Your task to perform on an android device: install app "AliExpress" Image 0: 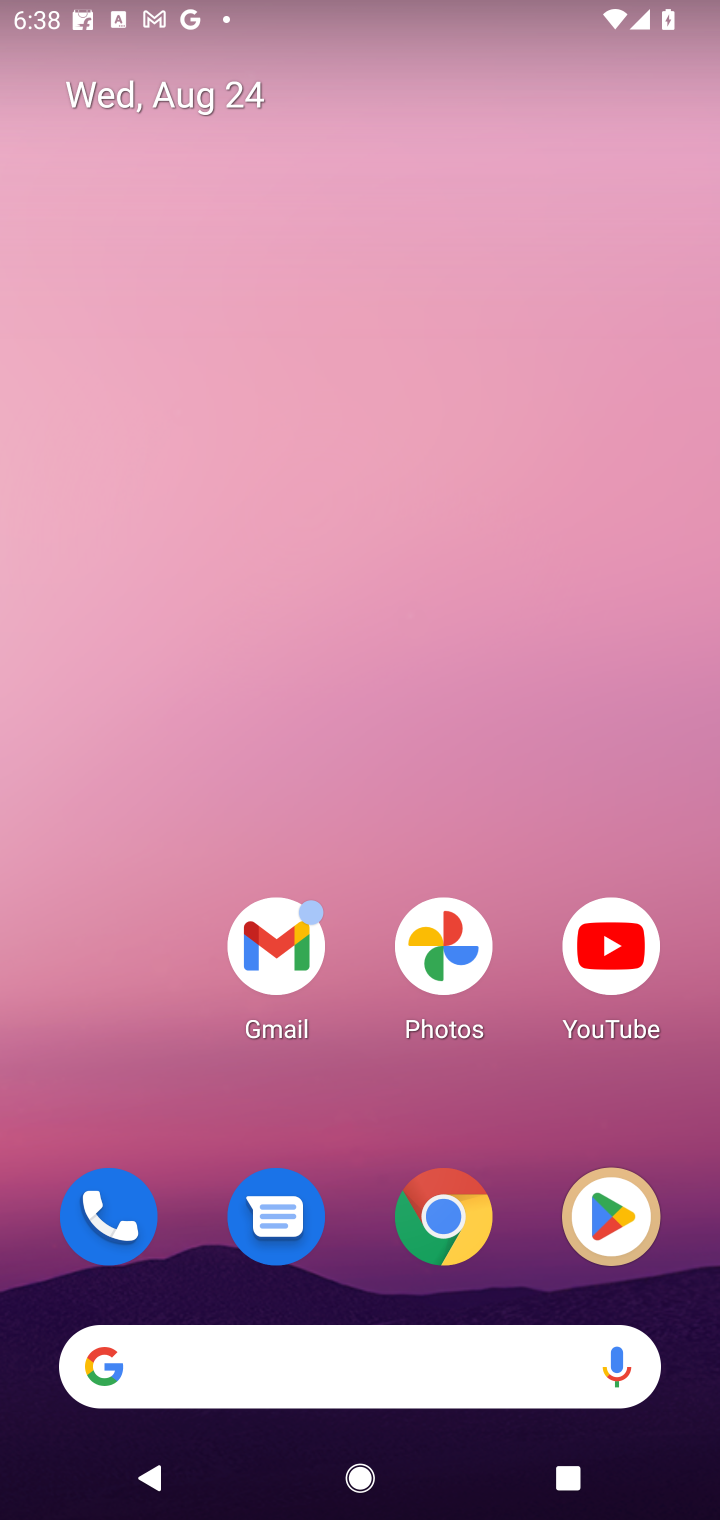
Step 0: click (606, 1221)
Your task to perform on an android device: install app "AliExpress" Image 1: 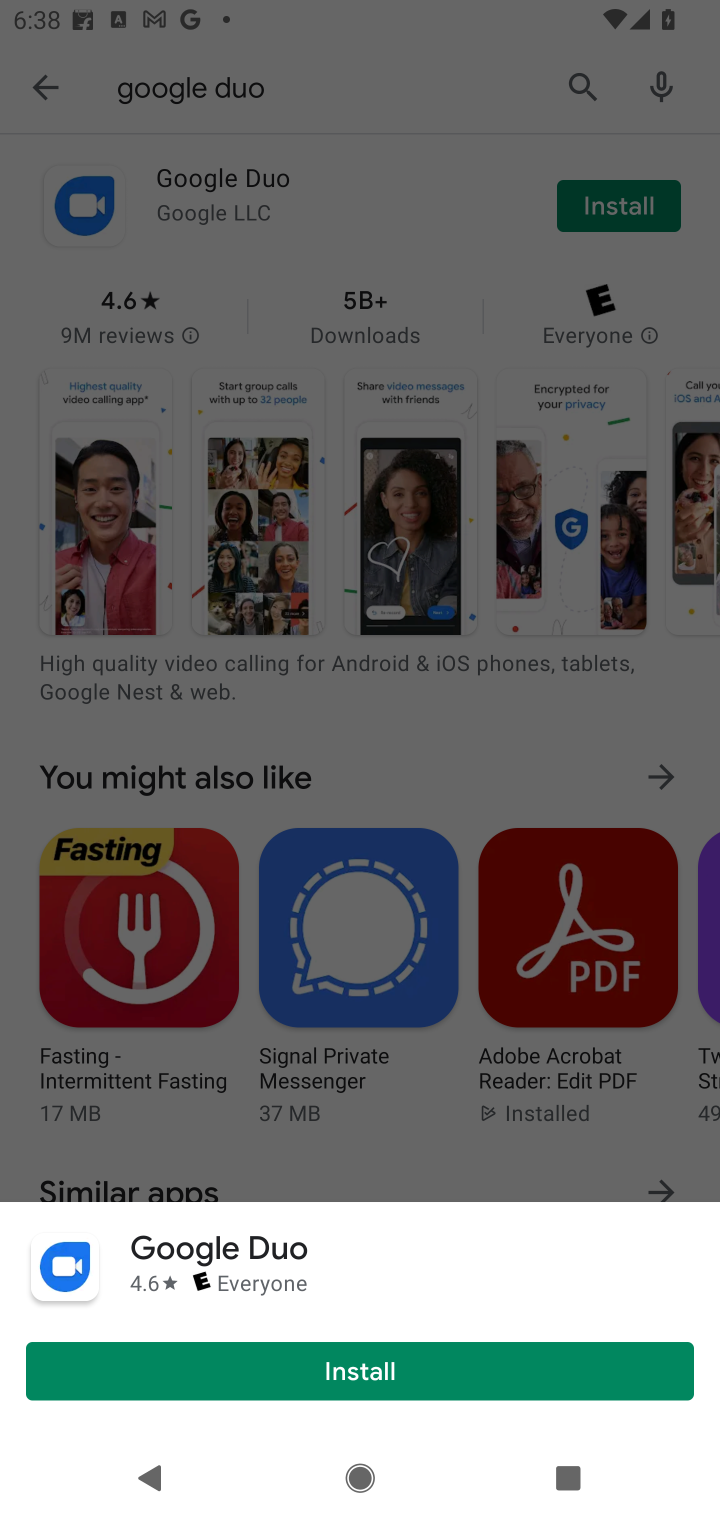
Step 1: click (572, 71)
Your task to perform on an android device: install app "AliExpress" Image 2: 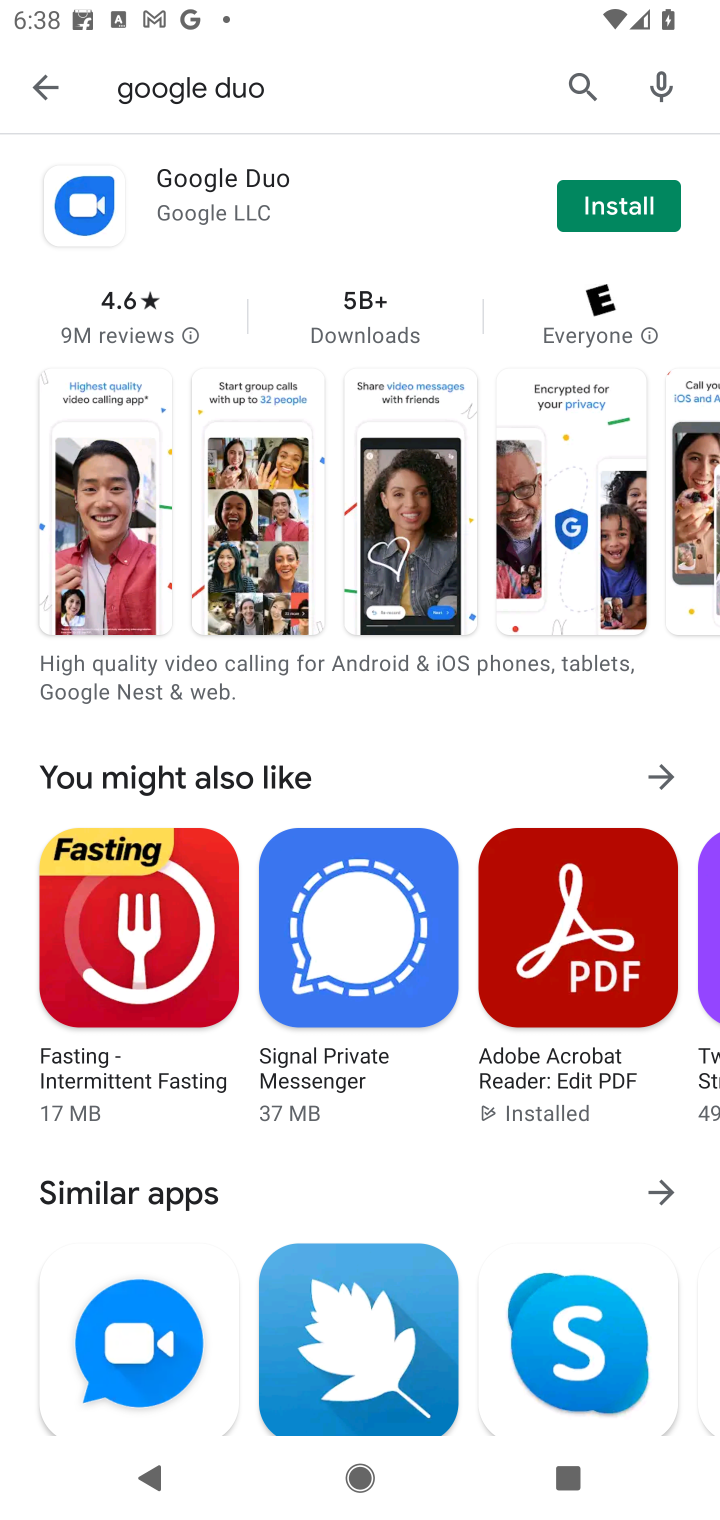
Step 2: click (582, 83)
Your task to perform on an android device: install app "AliExpress" Image 3: 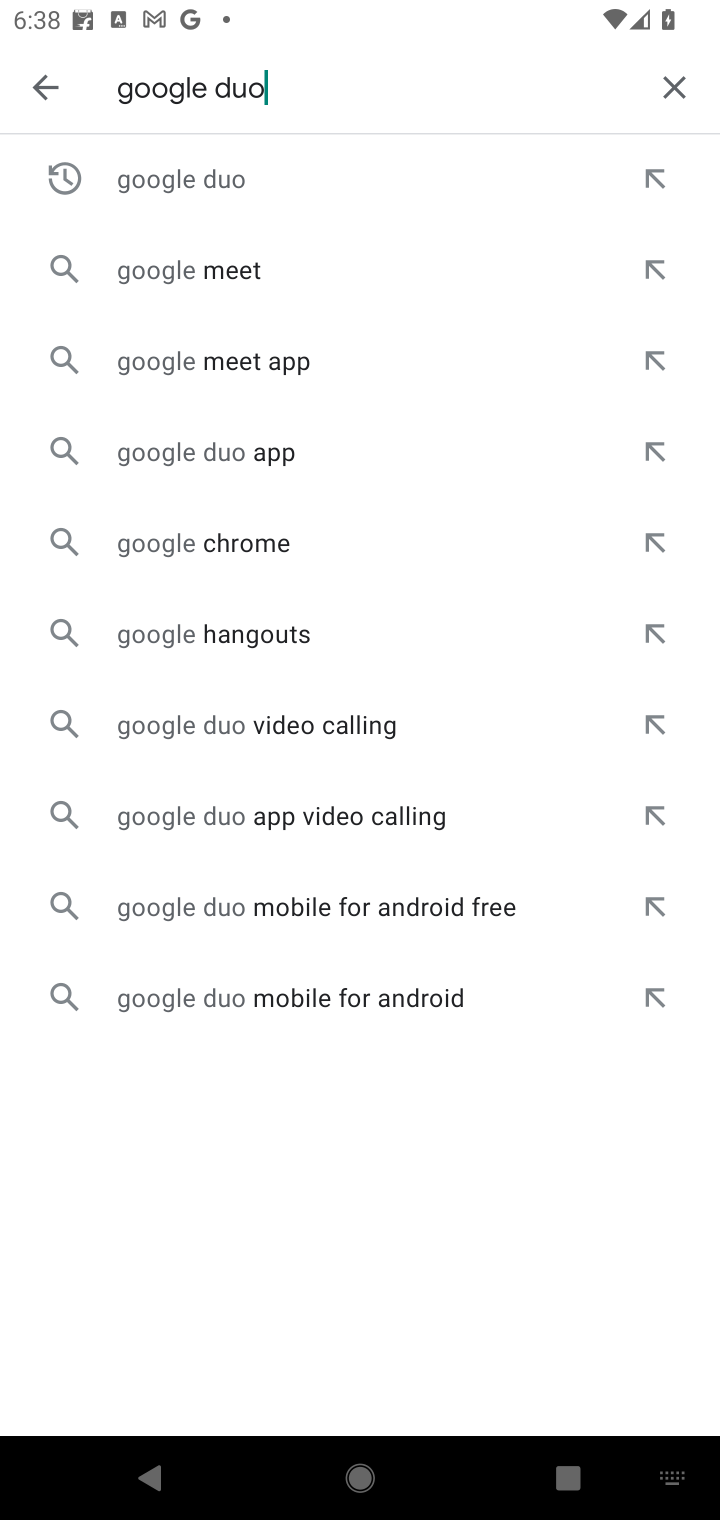
Step 3: click (658, 102)
Your task to perform on an android device: install app "AliExpress" Image 4: 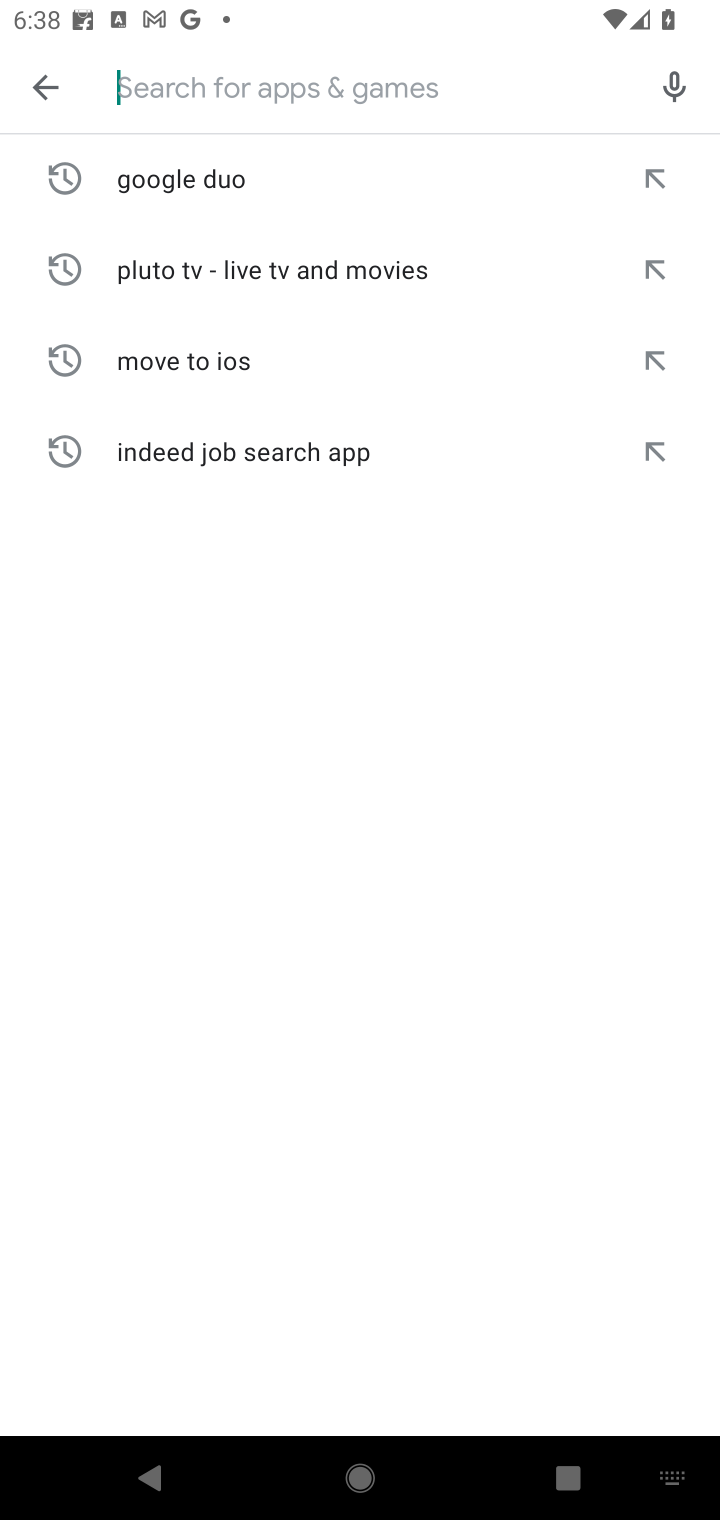
Step 4: type "AliExpress"
Your task to perform on an android device: install app "AliExpress" Image 5: 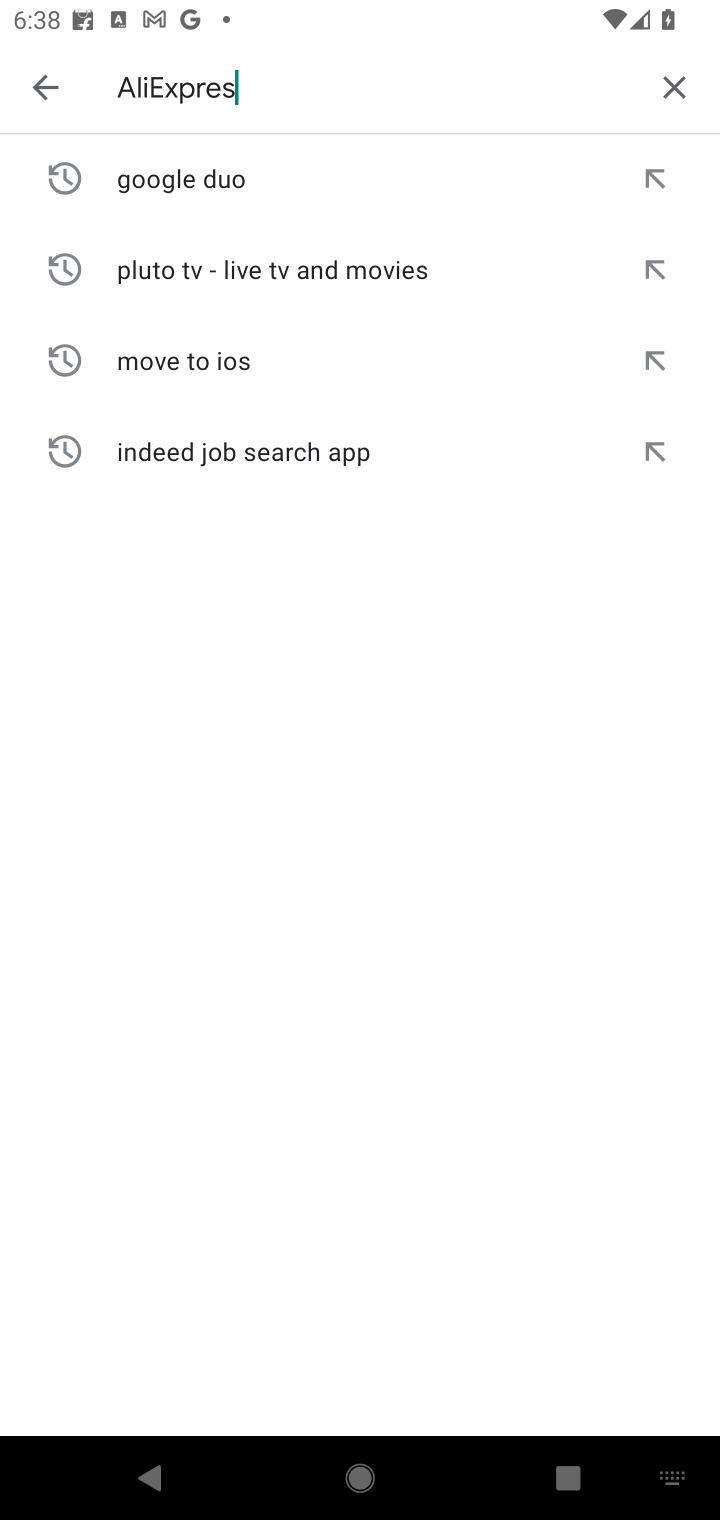
Step 5: type ""
Your task to perform on an android device: install app "AliExpress" Image 6: 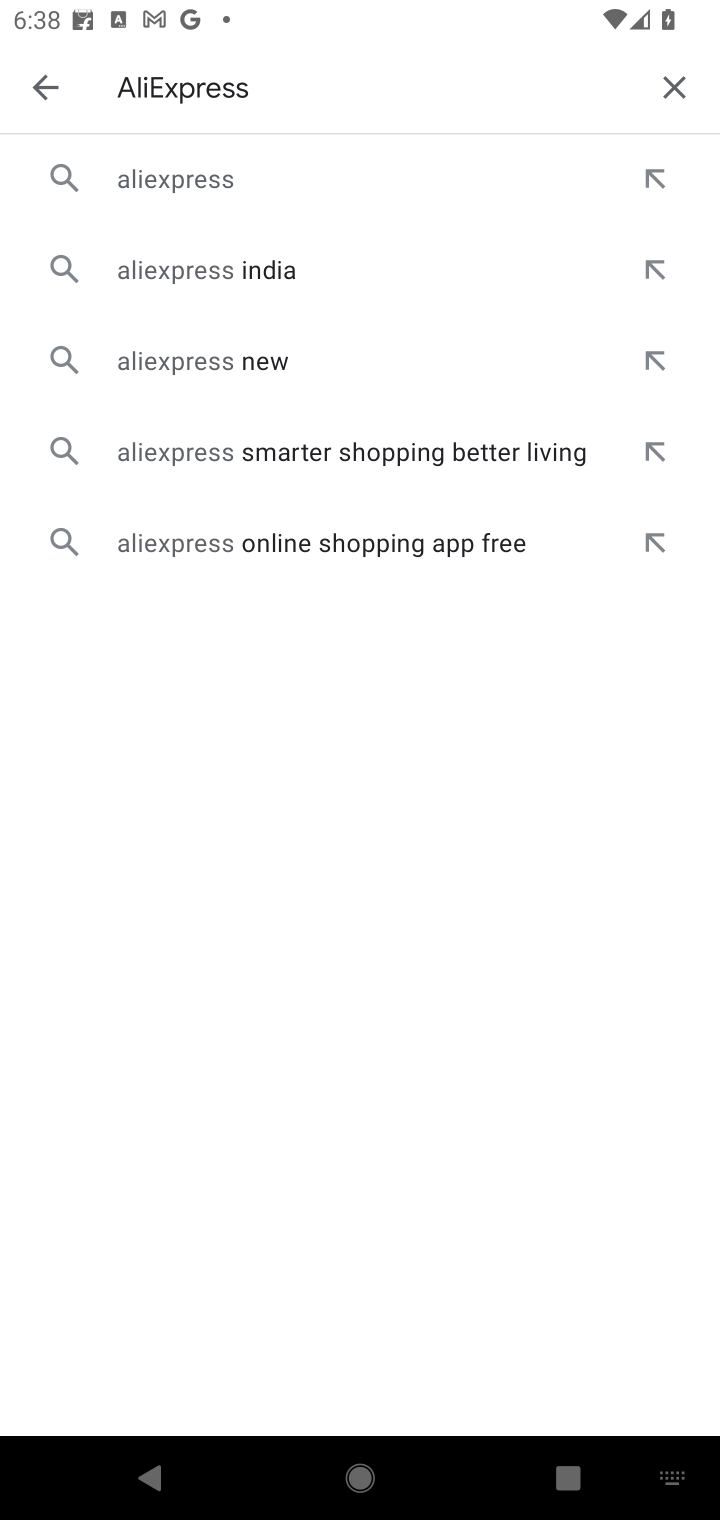
Step 6: click (242, 184)
Your task to perform on an android device: install app "AliExpress" Image 7: 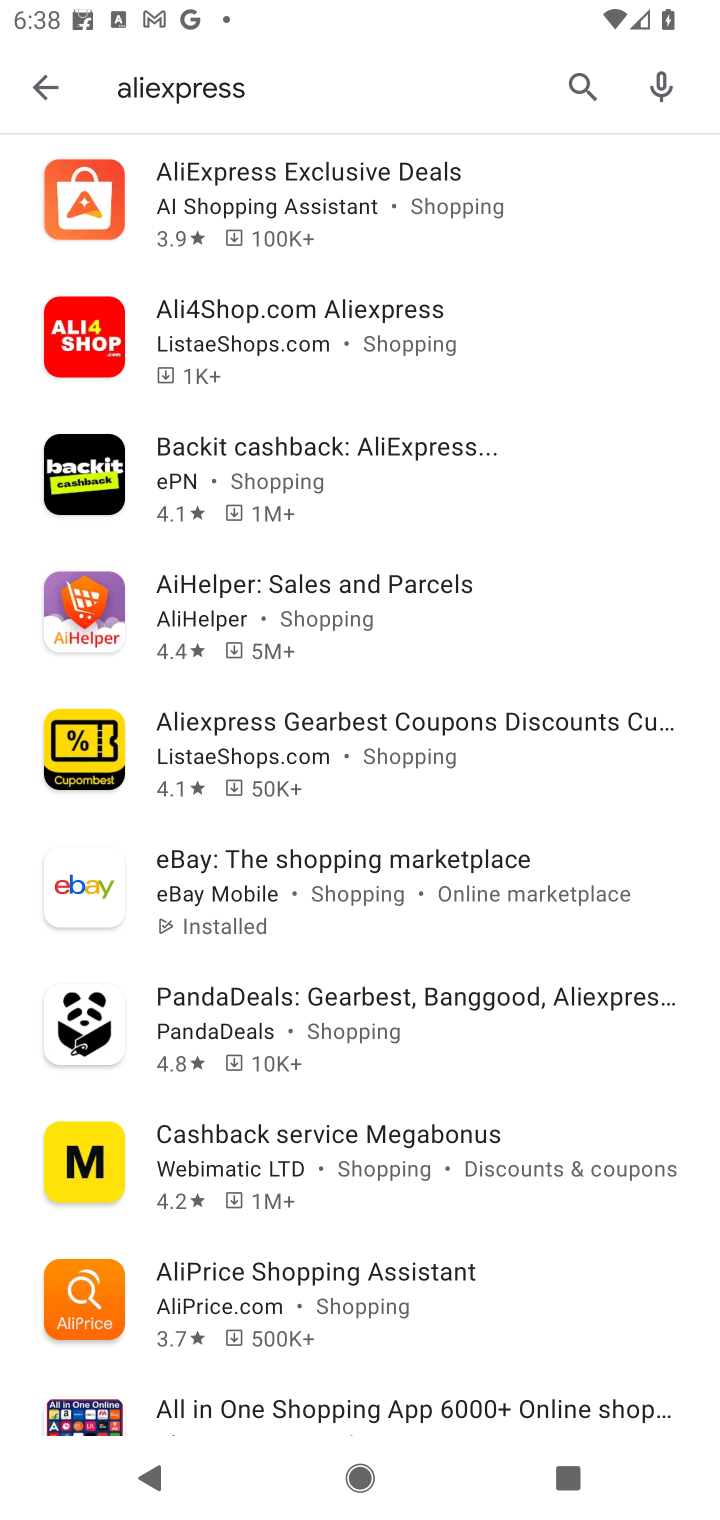
Step 7: click (242, 184)
Your task to perform on an android device: install app "AliExpress" Image 8: 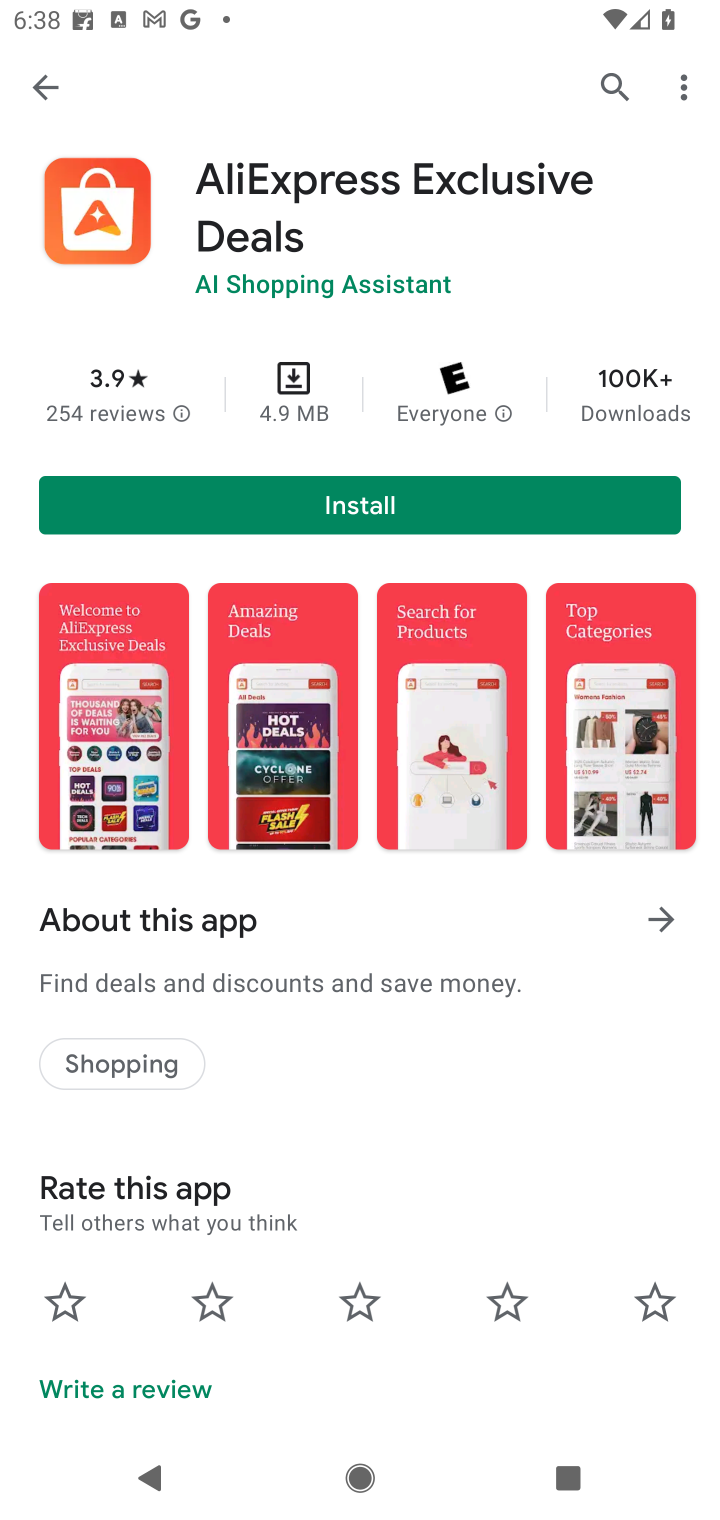
Step 8: click (309, 495)
Your task to perform on an android device: install app "AliExpress" Image 9: 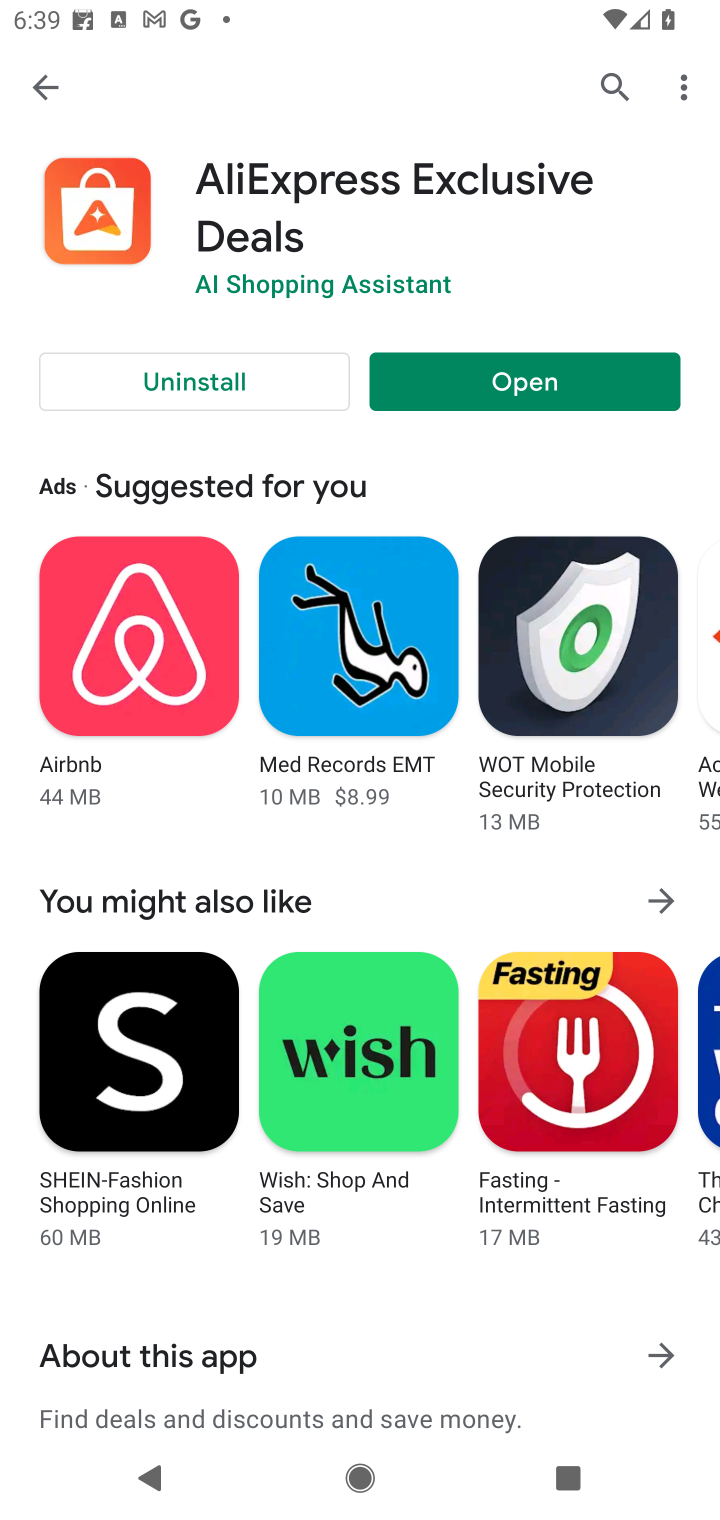
Step 9: task complete